Your task to perform on an android device: change notification settings in the gmail app Image 0: 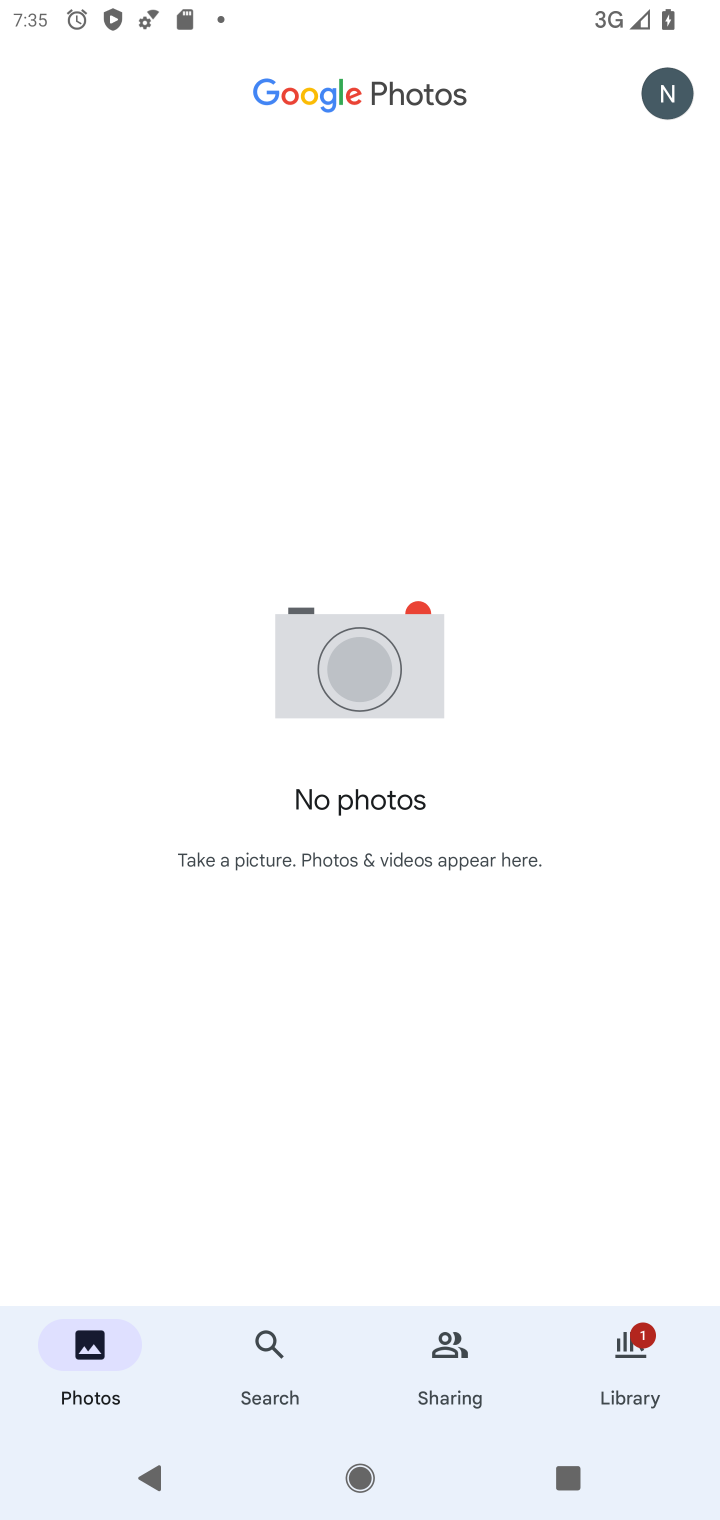
Step 0: drag from (536, 1218) to (512, 489)
Your task to perform on an android device: change notification settings in the gmail app Image 1: 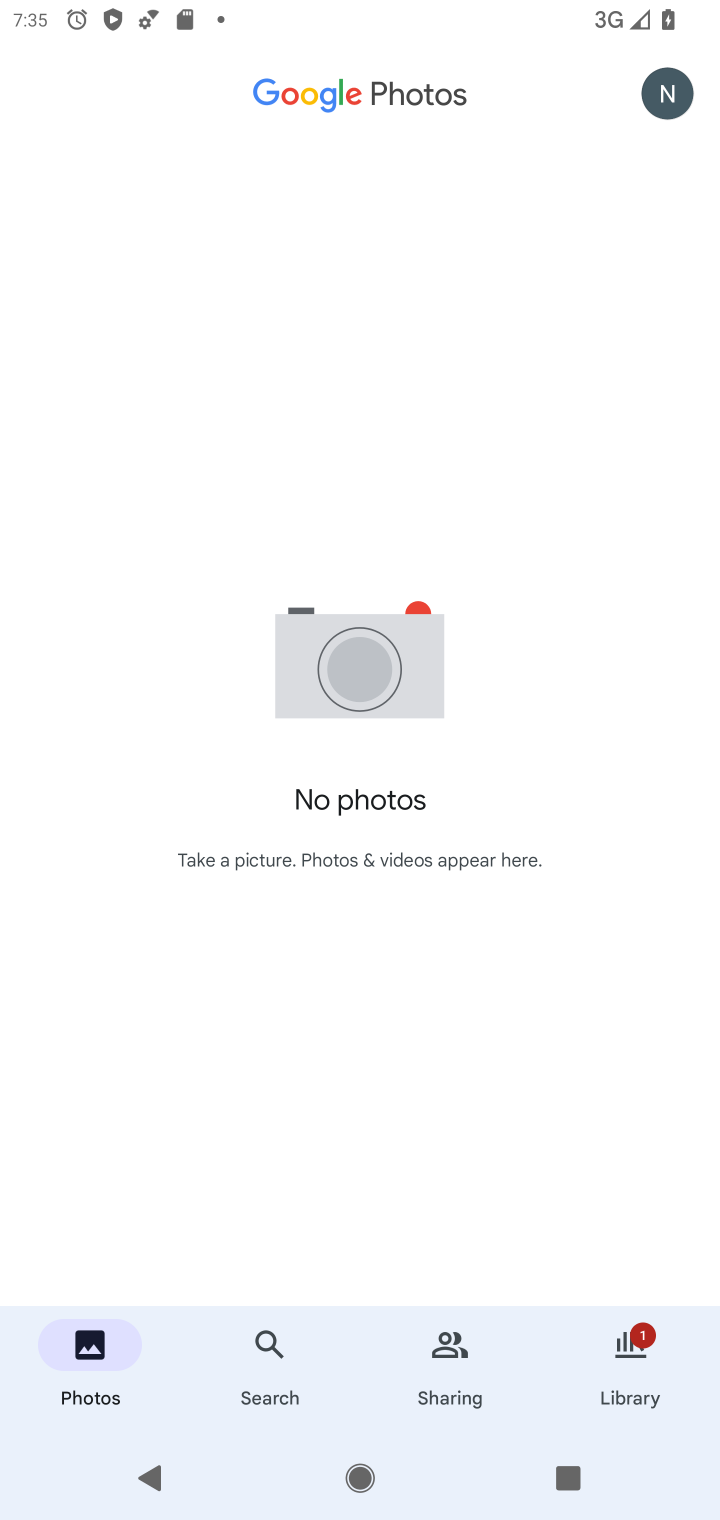
Step 1: press home button
Your task to perform on an android device: change notification settings in the gmail app Image 2: 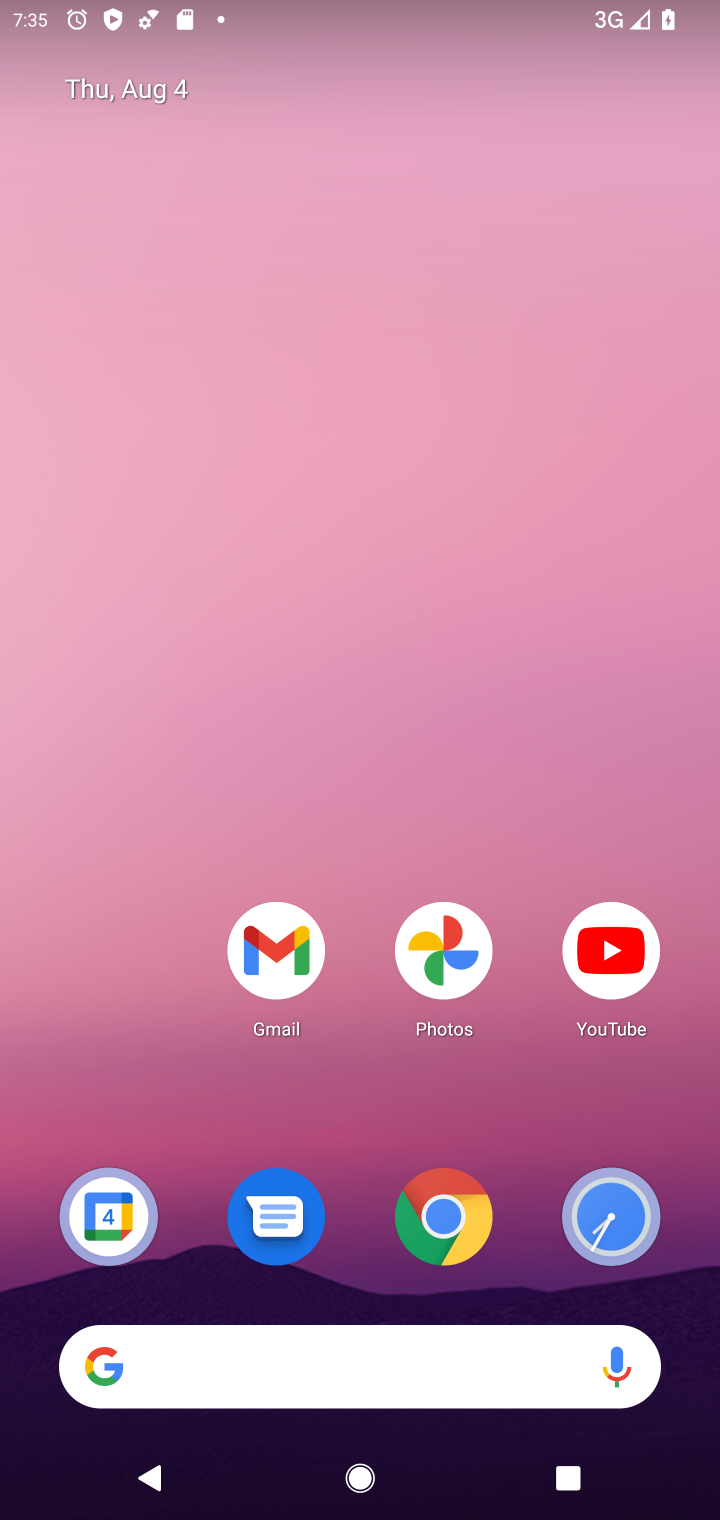
Step 2: click (262, 931)
Your task to perform on an android device: change notification settings in the gmail app Image 3: 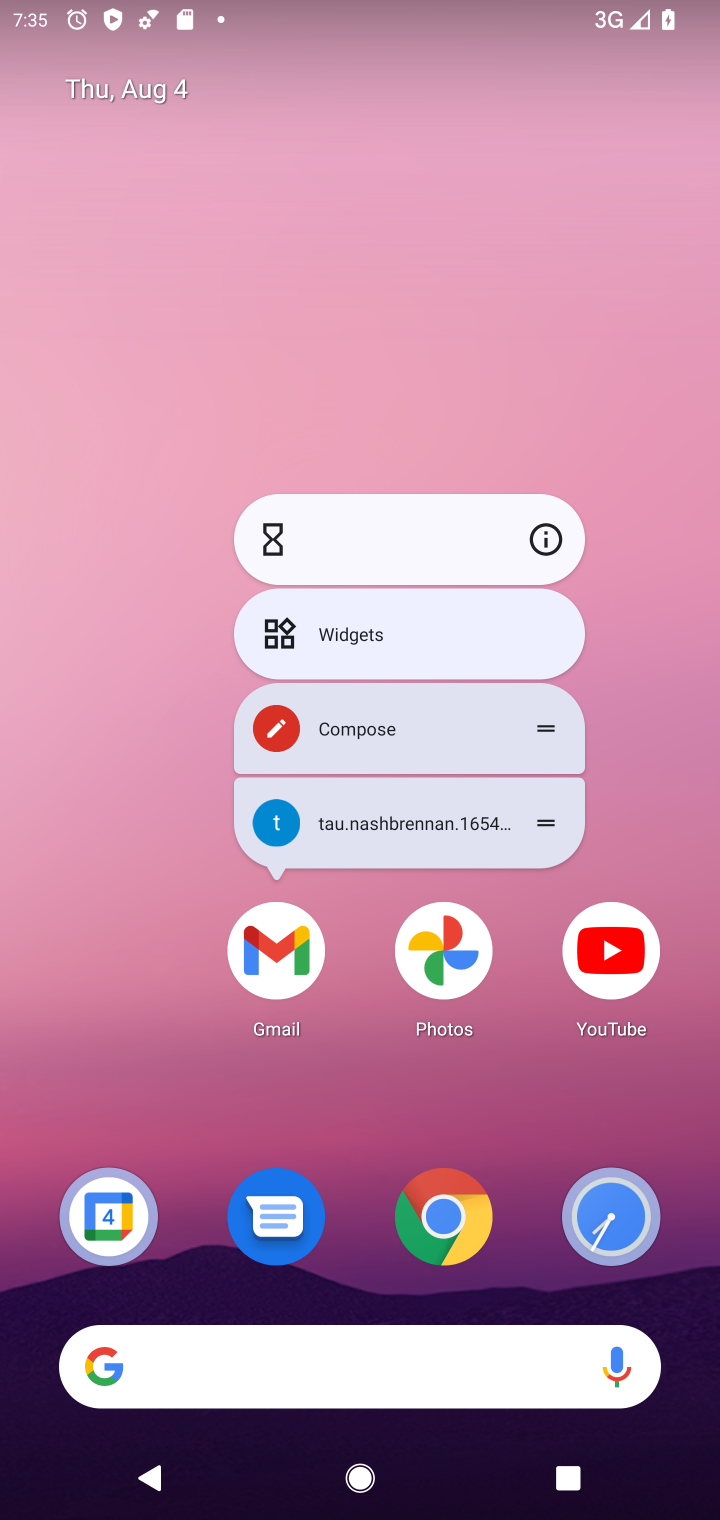
Step 3: click (550, 533)
Your task to perform on an android device: change notification settings in the gmail app Image 4: 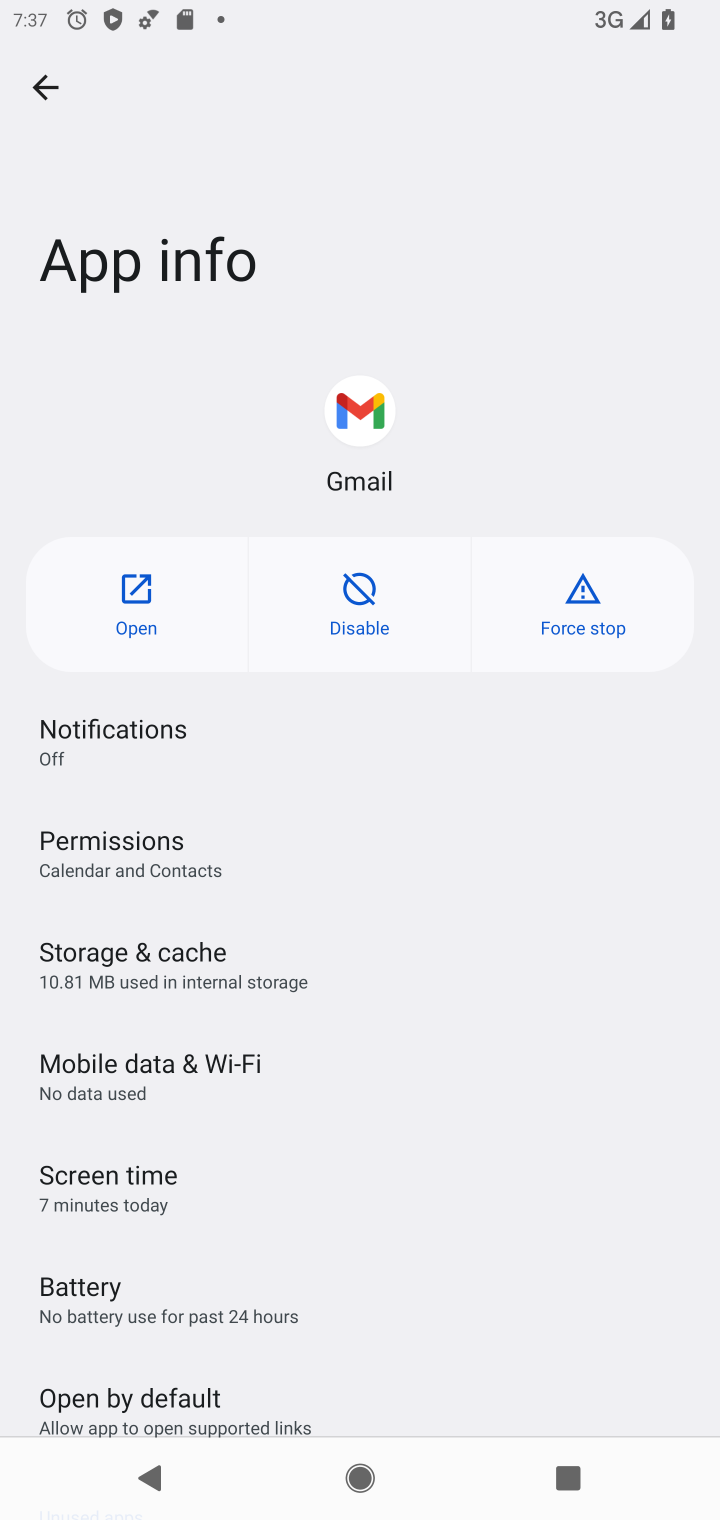
Step 4: click (265, 722)
Your task to perform on an android device: change notification settings in the gmail app Image 5: 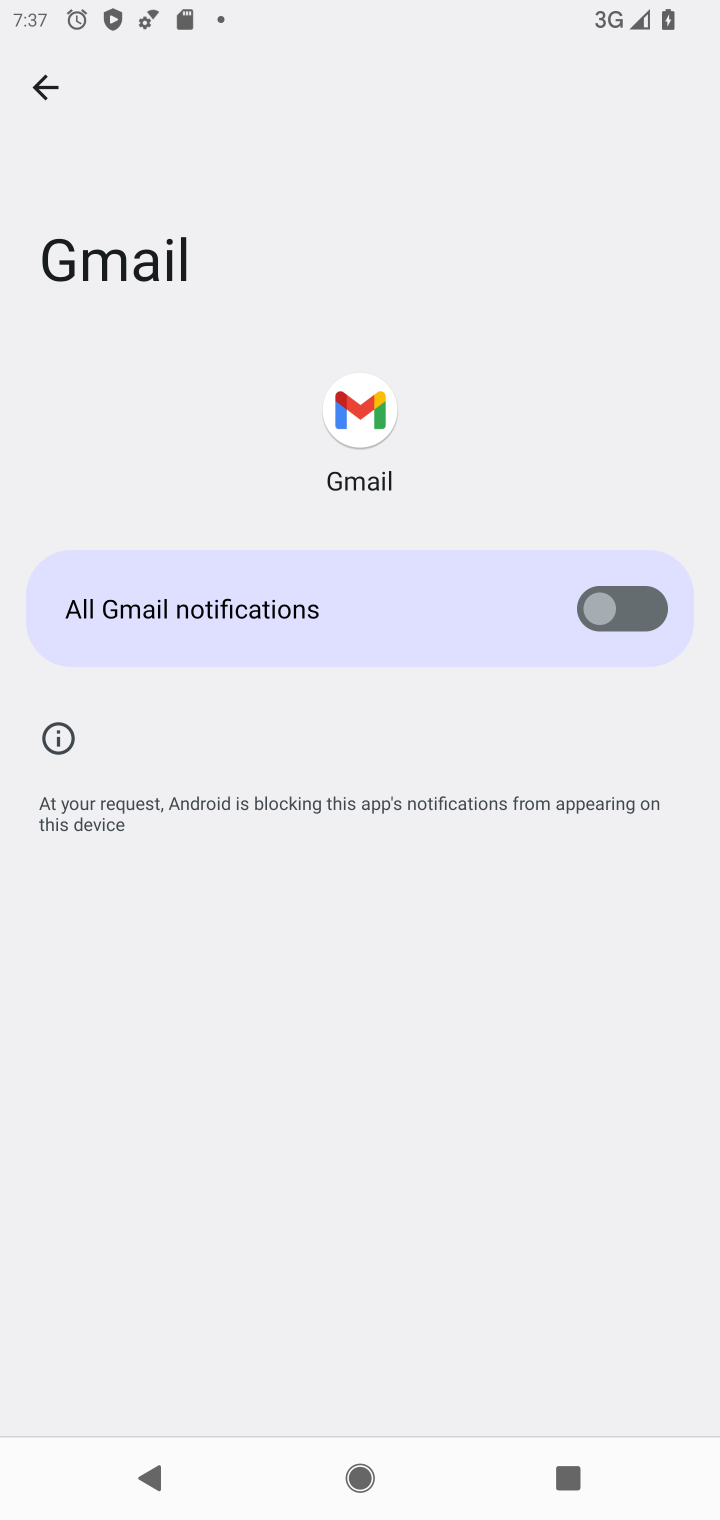
Step 5: click (635, 609)
Your task to perform on an android device: change notification settings in the gmail app Image 6: 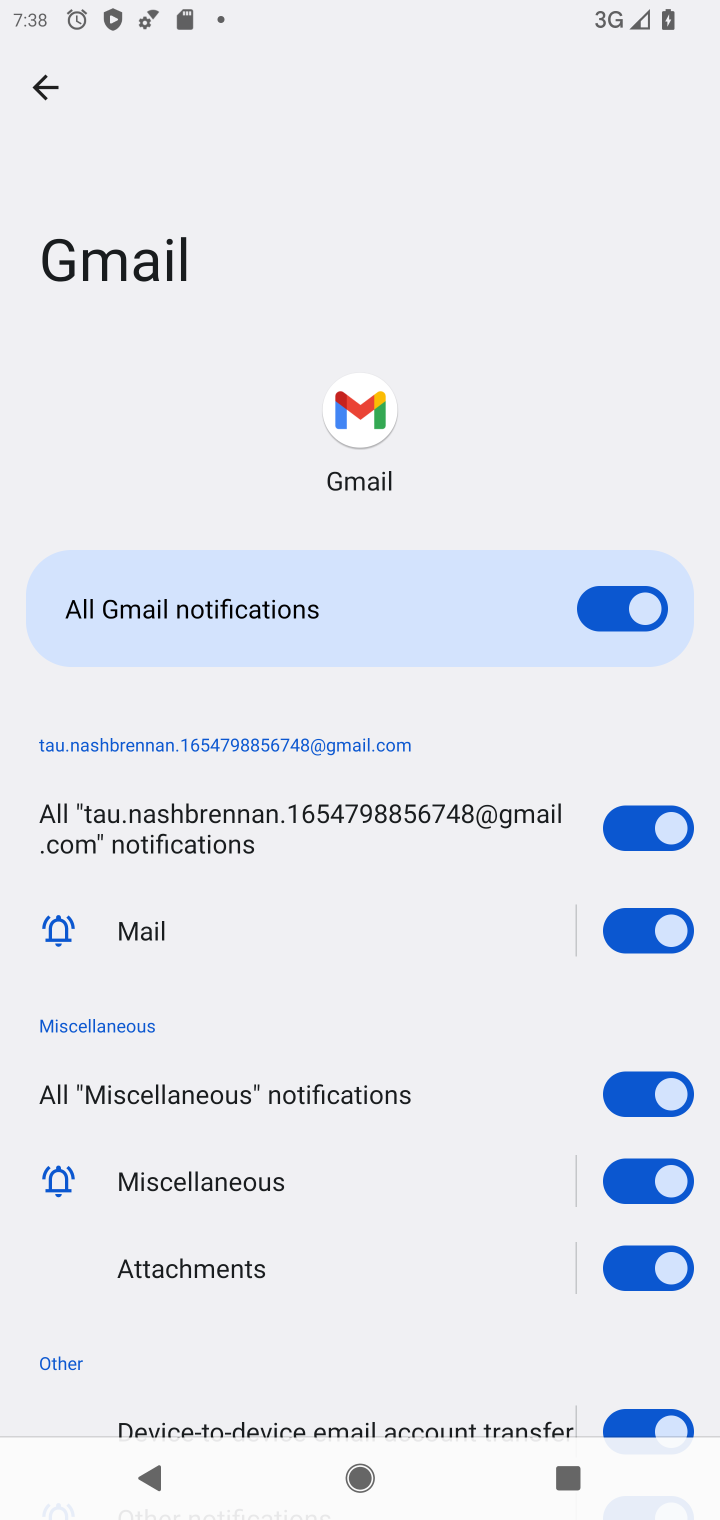
Step 6: task complete